Your task to perform on an android device: Open eBay Image 0: 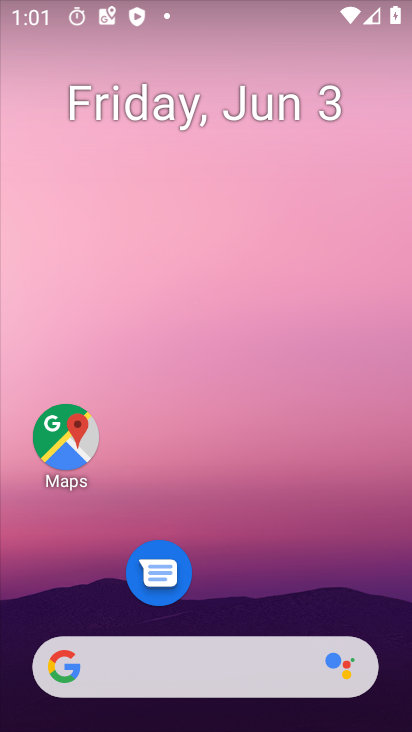
Step 0: drag from (266, 719) to (239, 308)
Your task to perform on an android device: Open eBay Image 1: 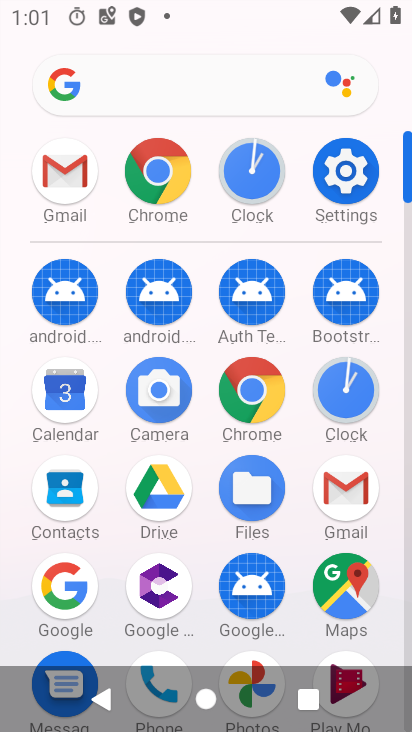
Step 1: click (165, 181)
Your task to perform on an android device: Open eBay Image 2: 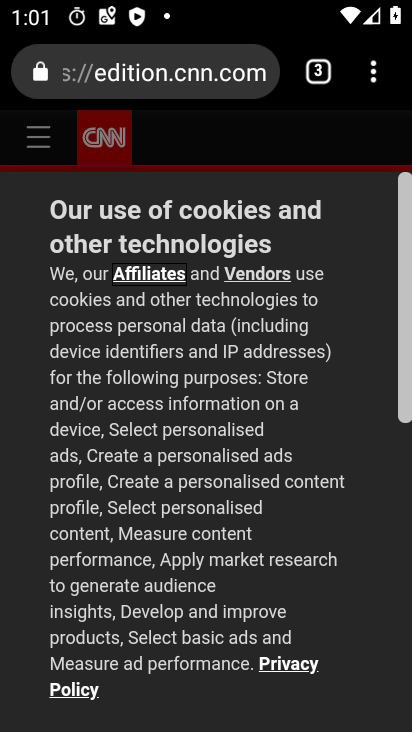
Step 2: click (229, 73)
Your task to perform on an android device: Open eBay Image 3: 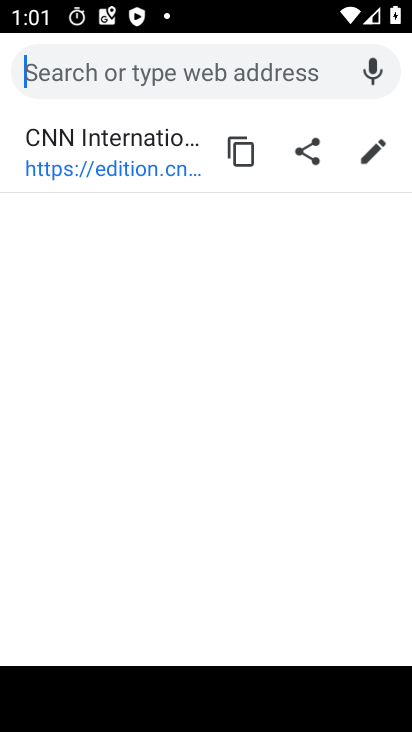
Step 3: type "ebay"
Your task to perform on an android device: Open eBay Image 4: 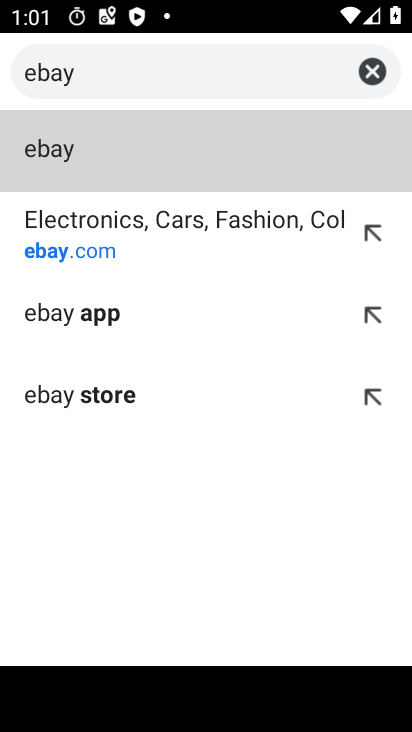
Step 4: click (76, 155)
Your task to perform on an android device: Open eBay Image 5: 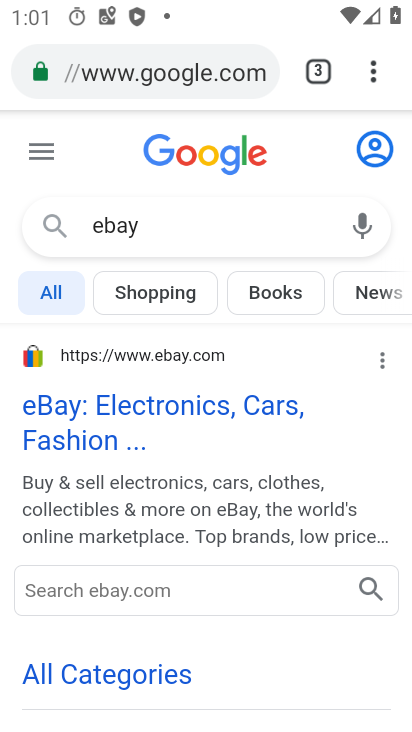
Step 5: click (180, 415)
Your task to perform on an android device: Open eBay Image 6: 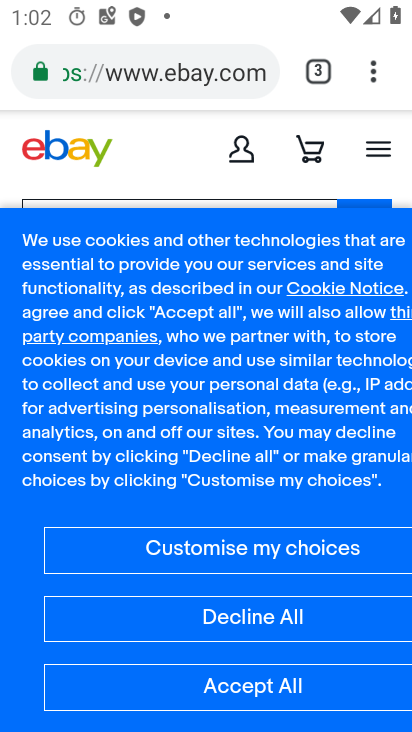
Step 6: click (236, 691)
Your task to perform on an android device: Open eBay Image 7: 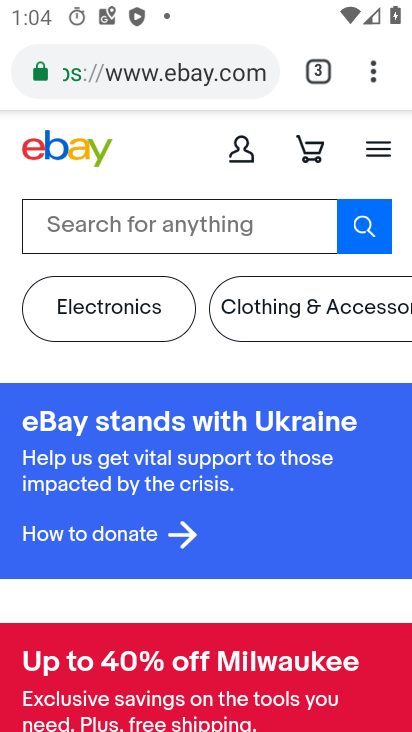
Step 7: task complete